Your task to perform on an android device: Open Maps and search for coffee Image 0: 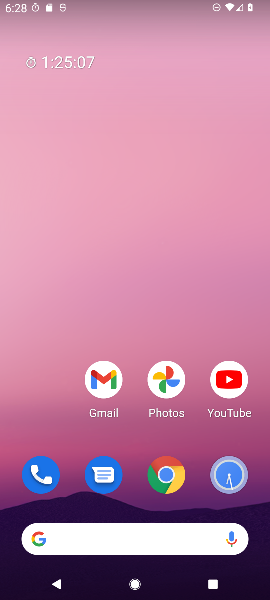
Step 0: press home button
Your task to perform on an android device: Open Maps and search for coffee Image 1: 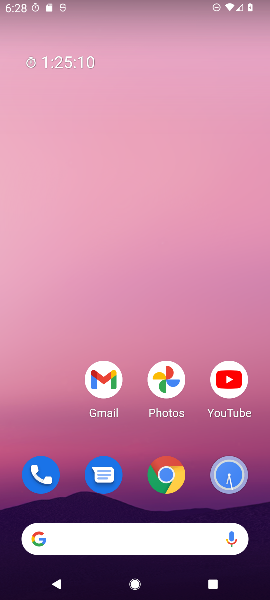
Step 1: drag from (55, 433) to (48, 194)
Your task to perform on an android device: Open Maps and search for coffee Image 2: 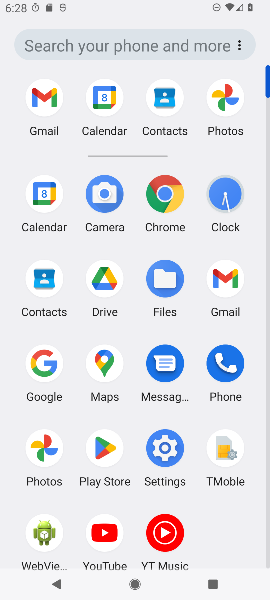
Step 2: click (96, 373)
Your task to perform on an android device: Open Maps and search for coffee Image 3: 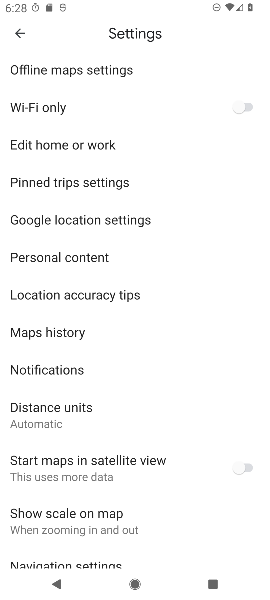
Step 3: press back button
Your task to perform on an android device: Open Maps and search for coffee Image 4: 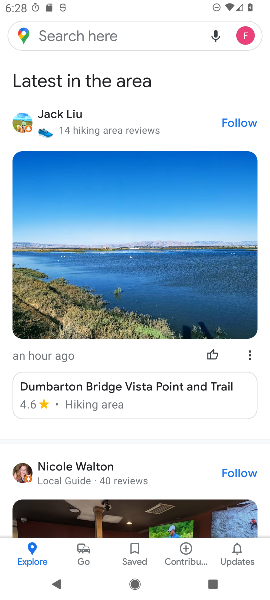
Step 4: click (142, 35)
Your task to perform on an android device: Open Maps and search for coffee Image 5: 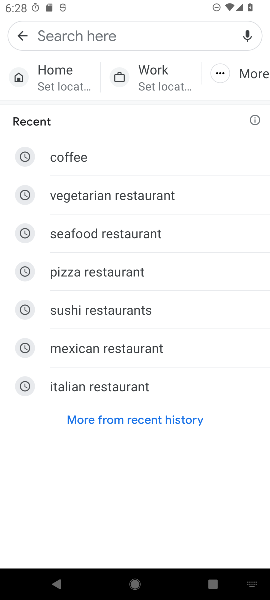
Step 5: type "coffee"
Your task to perform on an android device: Open Maps and search for coffee Image 6: 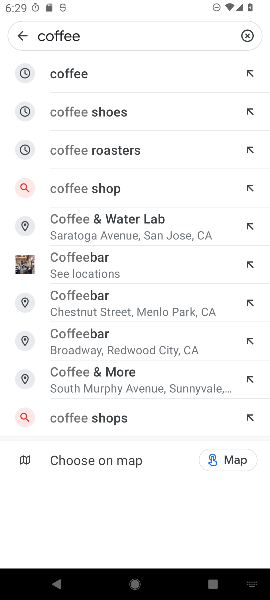
Step 6: click (179, 72)
Your task to perform on an android device: Open Maps and search for coffee Image 7: 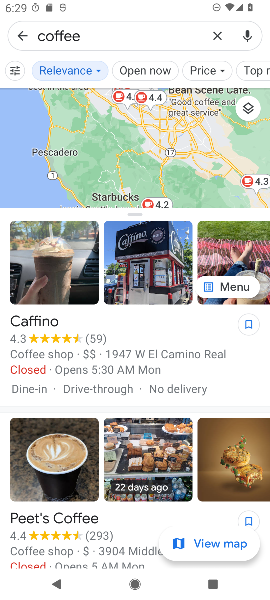
Step 7: task complete